Your task to perform on an android device: toggle priority inbox in the gmail app Image 0: 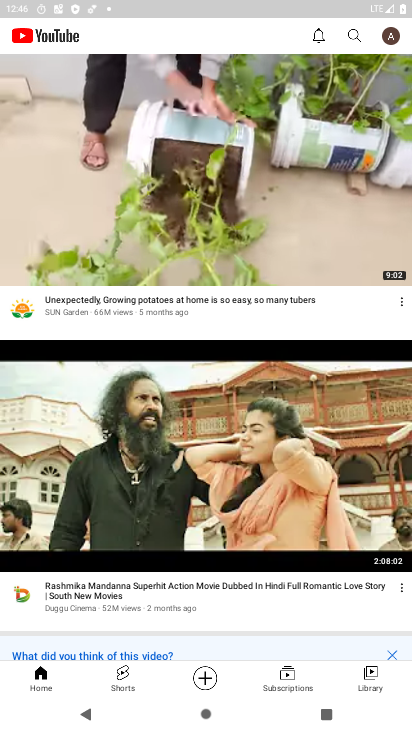
Step 0: press home button
Your task to perform on an android device: toggle priority inbox in the gmail app Image 1: 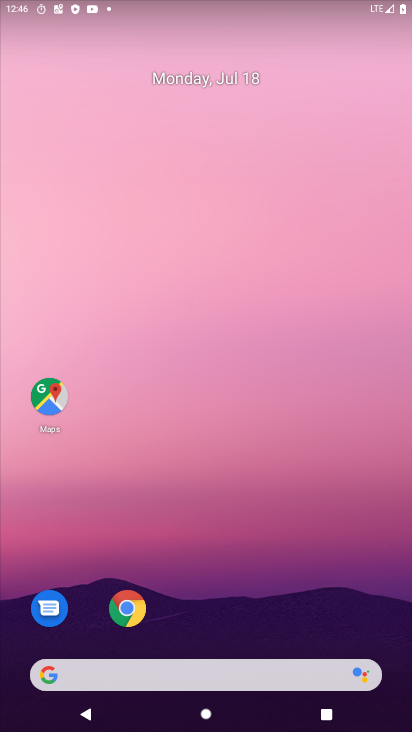
Step 1: drag from (287, 555) to (308, 10)
Your task to perform on an android device: toggle priority inbox in the gmail app Image 2: 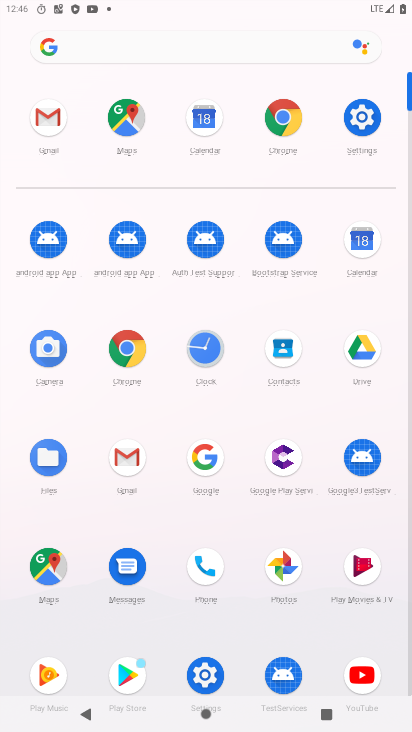
Step 2: click (357, 119)
Your task to perform on an android device: toggle priority inbox in the gmail app Image 3: 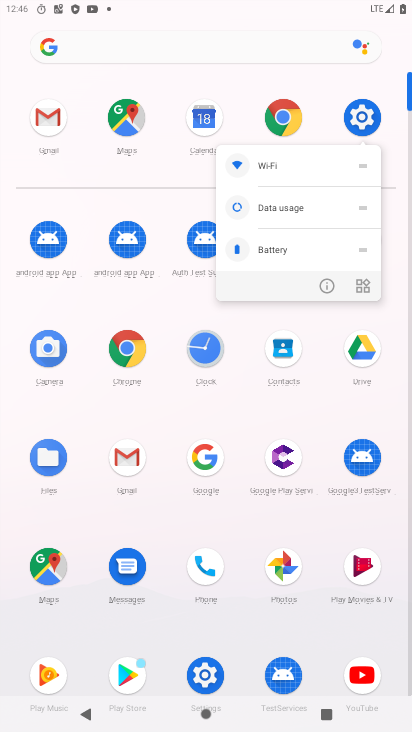
Step 3: click (358, 118)
Your task to perform on an android device: toggle priority inbox in the gmail app Image 4: 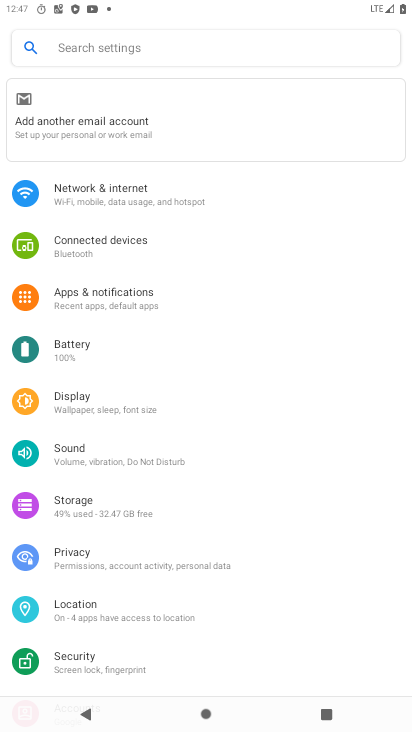
Step 4: press home button
Your task to perform on an android device: toggle priority inbox in the gmail app Image 5: 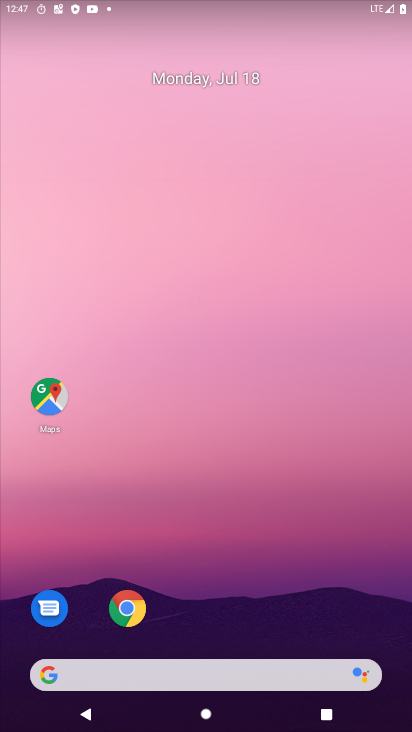
Step 5: drag from (309, 663) to (267, 24)
Your task to perform on an android device: toggle priority inbox in the gmail app Image 6: 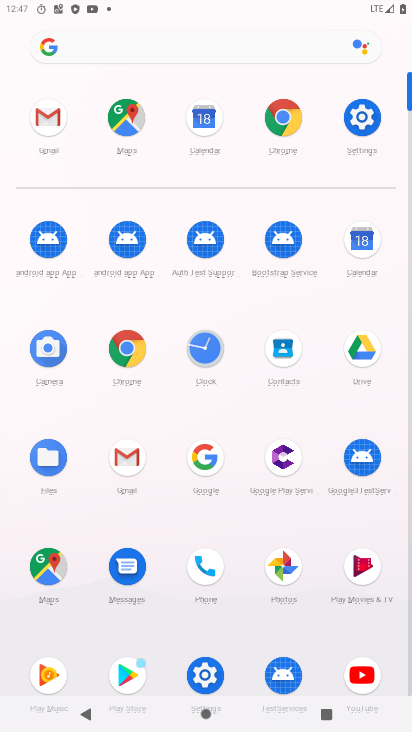
Step 6: click (33, 120)
Your task to perform on an android device: toggle priority inbox in the gmail app Image 7: 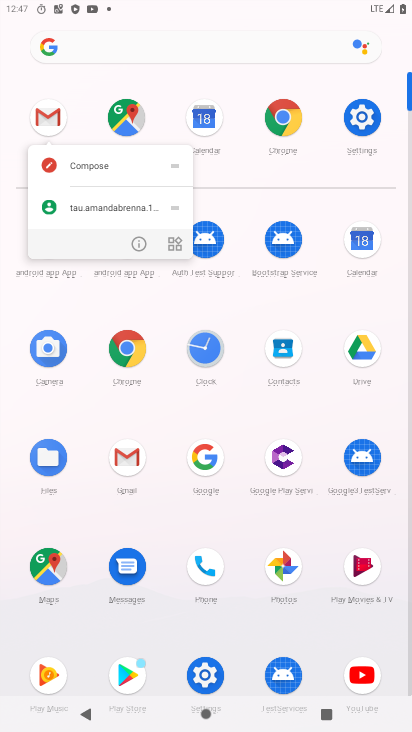
Step 7: click (56, 125)
Your task to perform on an android device: toggle priority inbox in the gmail app Image 8: 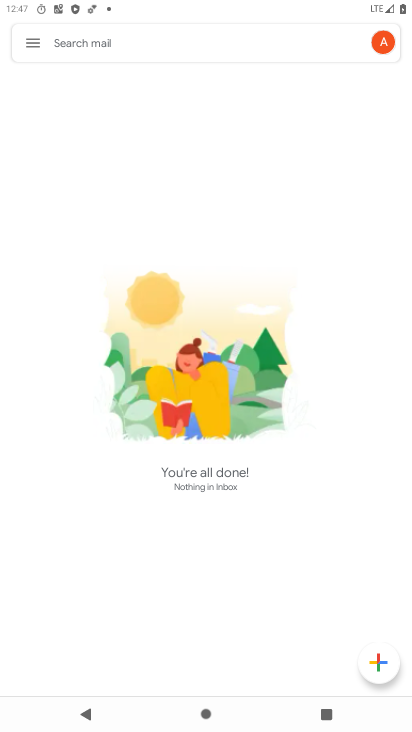
Step 8: click (36, 42)
Your task to perform on an android device: toggle priority inbox in the gmail app Image 9: 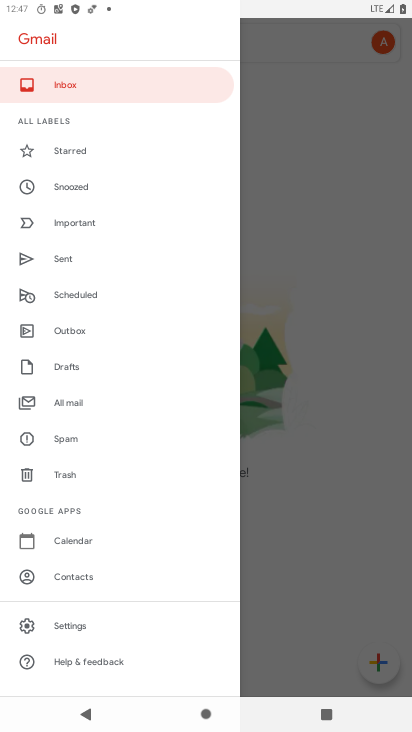
Step 9: click (75, 627)
Your task to perform on an android device: toggle priority inbox in the gmail app Image 10: 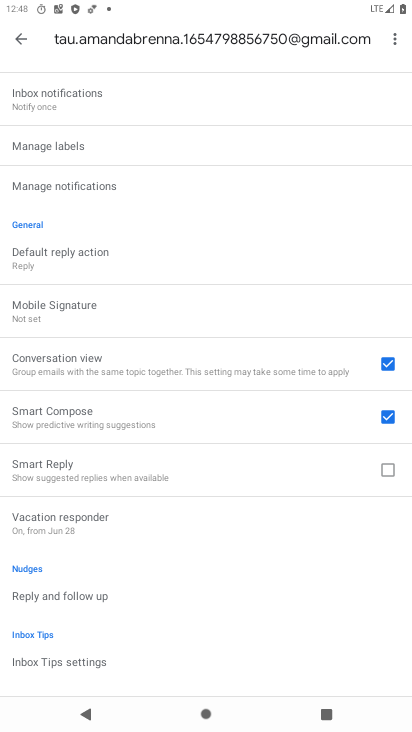
Step 10: drag from (114, 150) to (153, 489)
Your task to perform on an android device: toggle priority inbox in the gmail app Image 11: 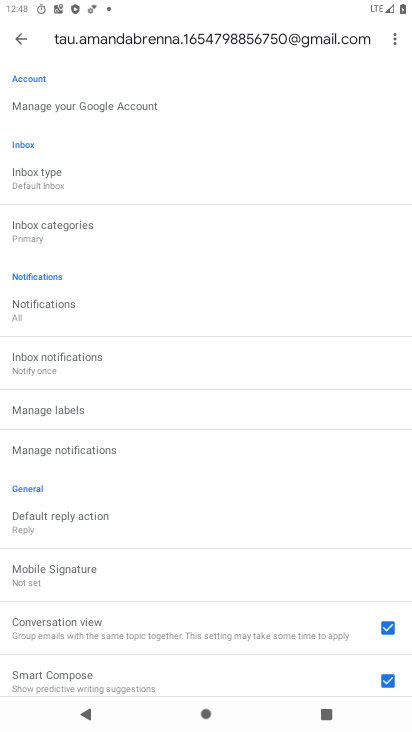
Step 11: click (44, 177)
Your task to perform on an android device: toggle priority inbox in the gmail app Image 12: 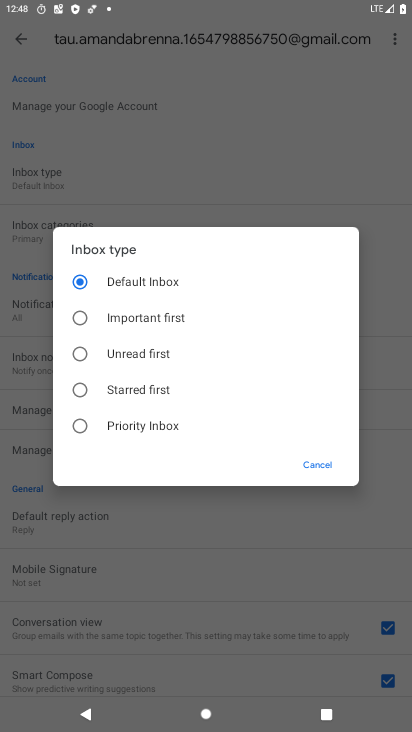
Step 12: click (131, 426)
Your task to perform on an android device: toggle priority inbox in the gmail app Image 13: 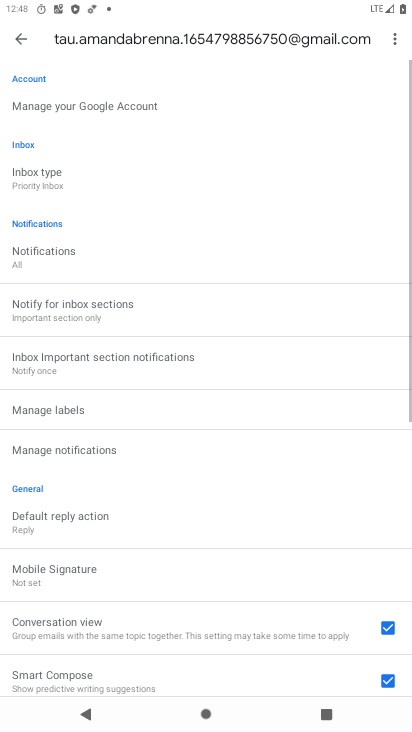
Step 13: task complete